Your task to perform on an android device: Open calendar and show me the first week of next month Image 0: 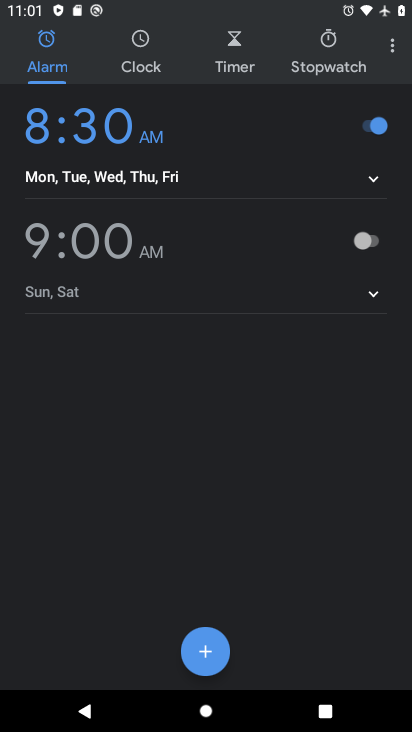
Step 0: press home button
Your task to perform on an android device: Open calendar and show me the first week of next month Image 1: 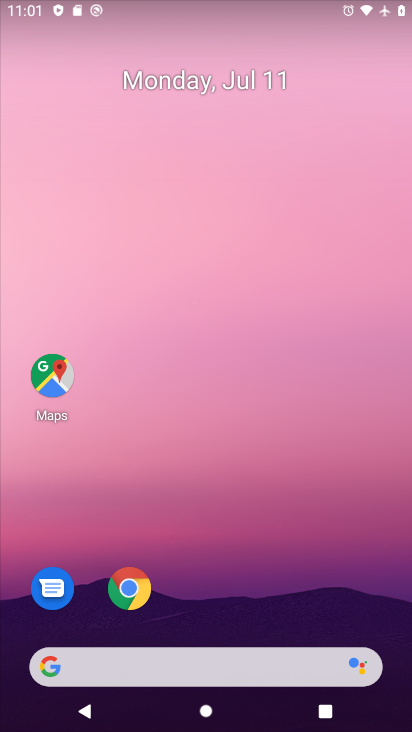
Step 1: drag from (150, 666) to (289, 145)
Your task to perform on an android device: Open calendar and show me the first week of next month Image 2: 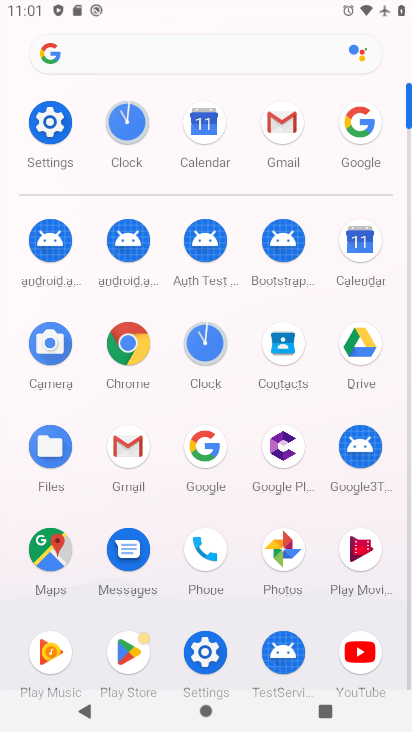
Step 2: click (202, 130)
Your task to perform on an android device: Open calendar and show me the first week of next month Image 3: 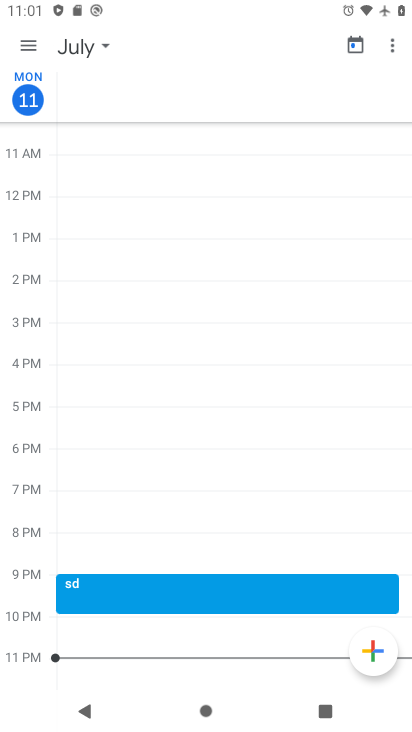
Step 3: click (80, 41)
Your task to perform on an android device: Open calendar and show me the first week of next month Image 4: 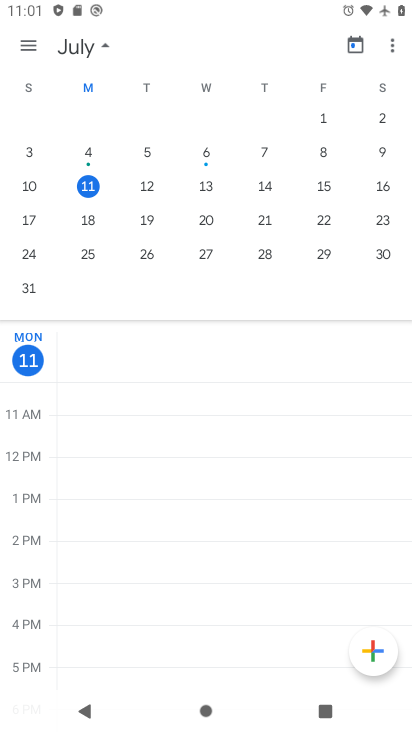
Step 4: drag from (347, 208) to (11, 196)
Your task to perform on an android device: Open calendar and show me the first week of next month Image 5: 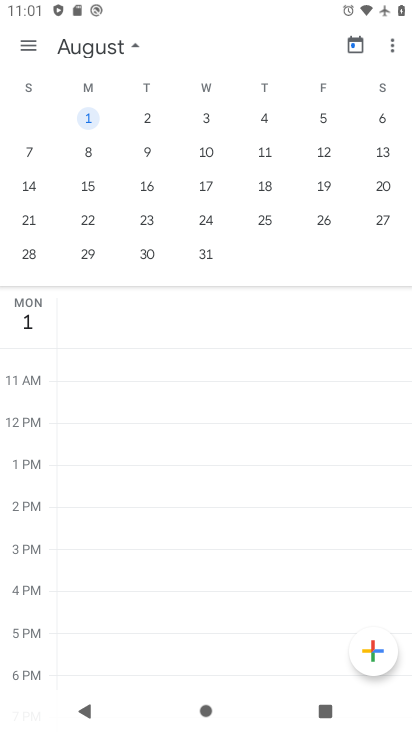
Step 5: click (88, 116)
Your task to perform on an android device: Open calendar and show me the first week of next month Image 6: 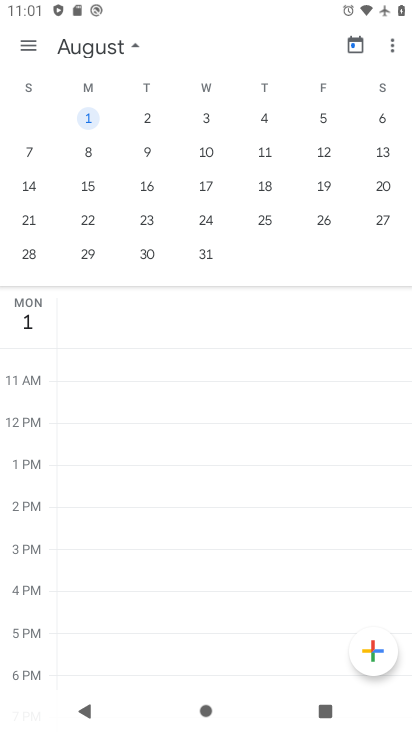
Step 6: click (29, 35)
Your task to perform on an android device: Open calendar and show me the first week of next month Image 7: 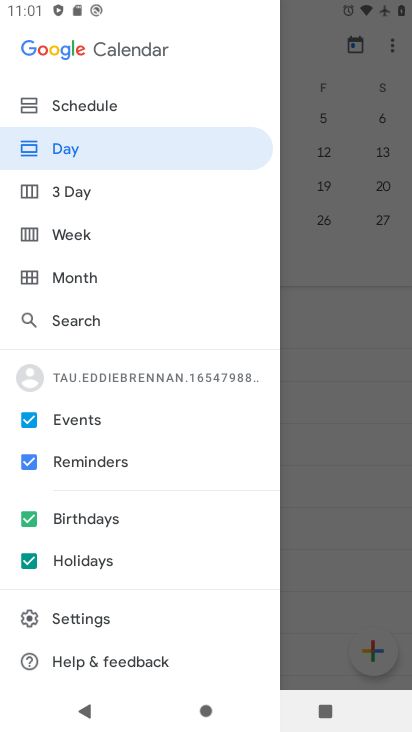
Step 7: click (89, 238)
Your task to perform on an android device: Open calendar and show me the first week of next month Image 8: 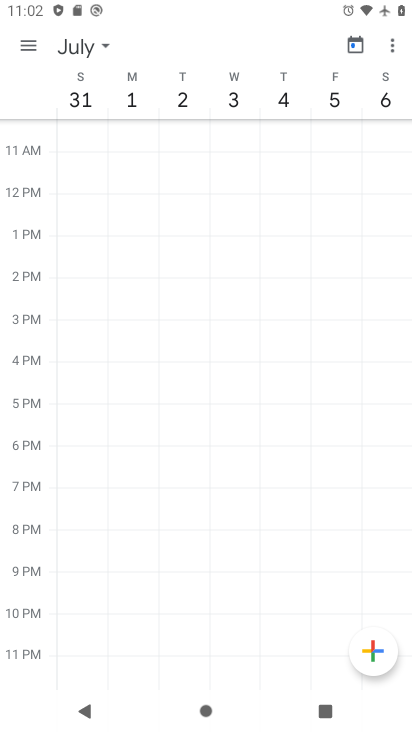
Step 8: task complete